Your task to perform on an android device: turn off improve location accuracy Image 0: 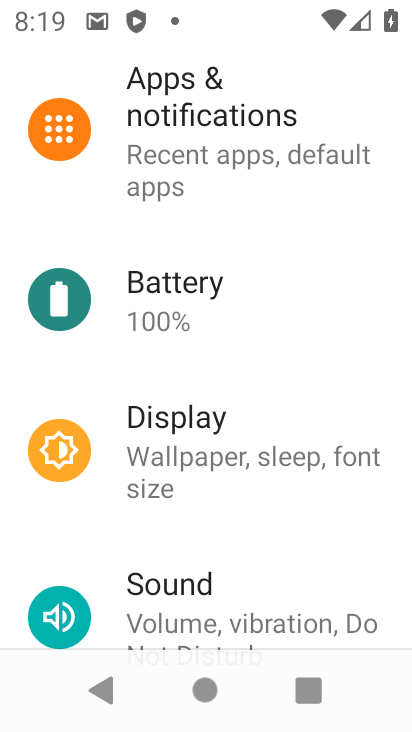
Step 0: drag from (257, 523) to (237, 15)
Your task to perform on an android device: turn off improve location accuracy Image 1: 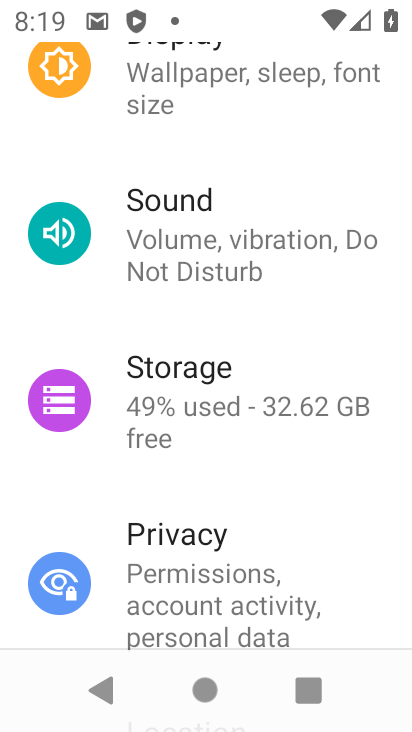
Step 1: drag from (232, 582) to (244, 106)
Your task to perform on an android device: turn off improve location accuracy Image 2: 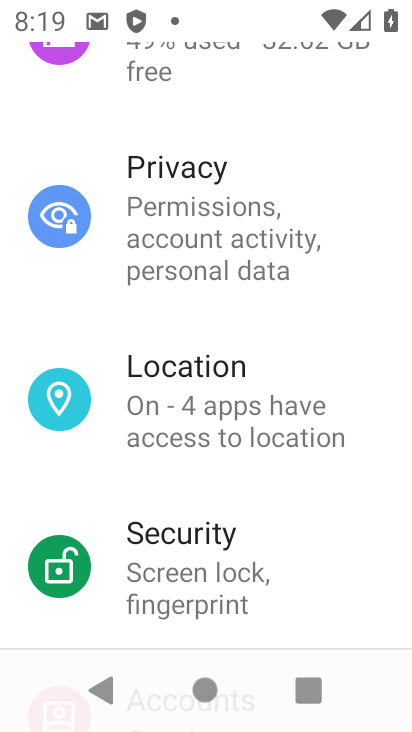
Step 2: click (223, 420)
Your task to perform on an android device: turn off improve location accuracy Image 3: 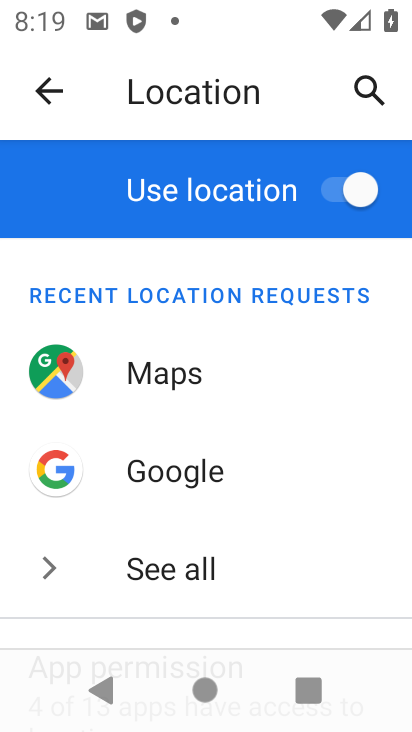
Step 3: drag from (236, 550) to (257, 16)
Your task to perform on an android device: turn off improve location accuracy Image 4: 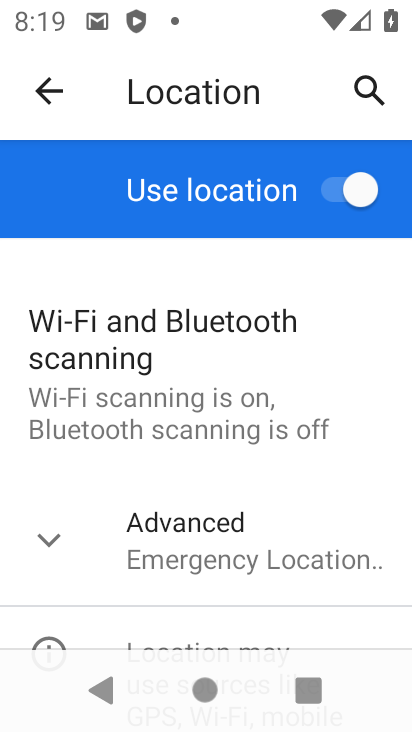
Step 4: click (296, 562)
Your task to perform on an android device: turn off improve location accuracy Image 5: 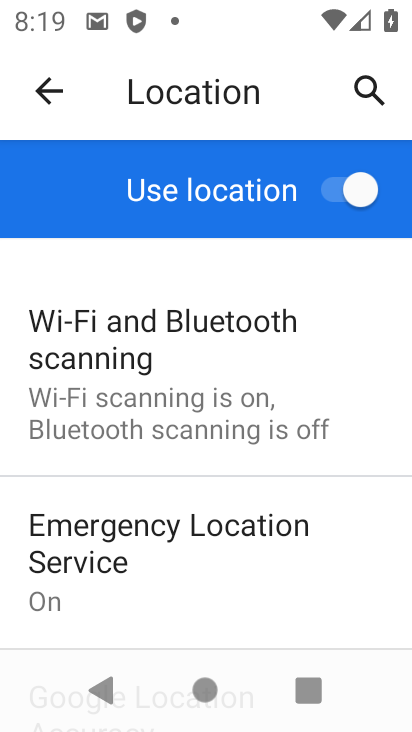
Step 5: drag from (279, 609) to (305, 179)
Your task to perform on an android device: turn off improve location accuracy Image 6: 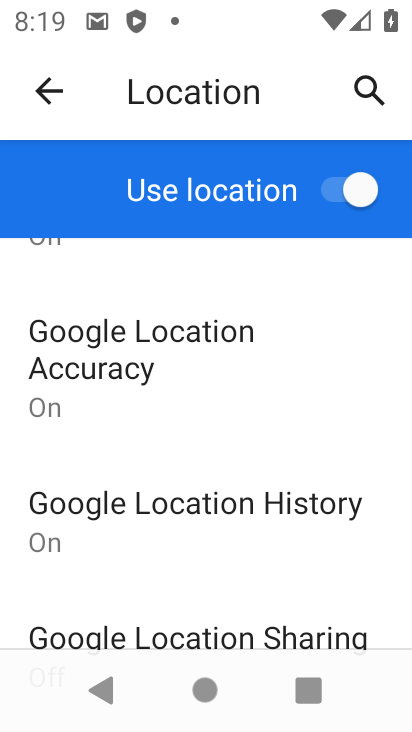
Step 6: drag from (231, 519) to (312, 26)
Your task to perform on an android device: turn off improve location accuracy Image 7: 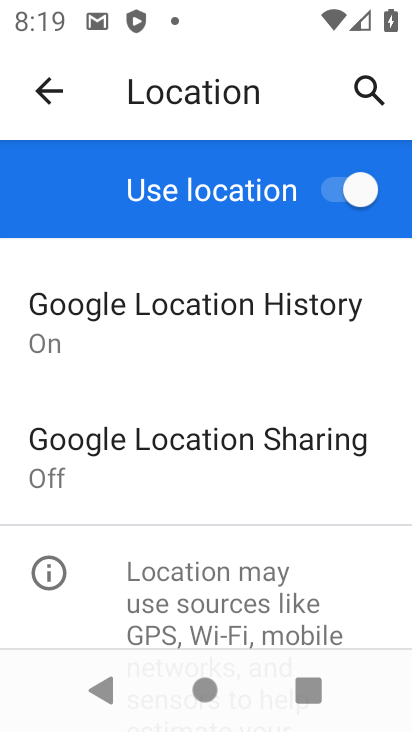
Step 7: drag from (253, 285) to (261, 704)
Your task to perform on an android device: turn off improve location accuracy Image 8: 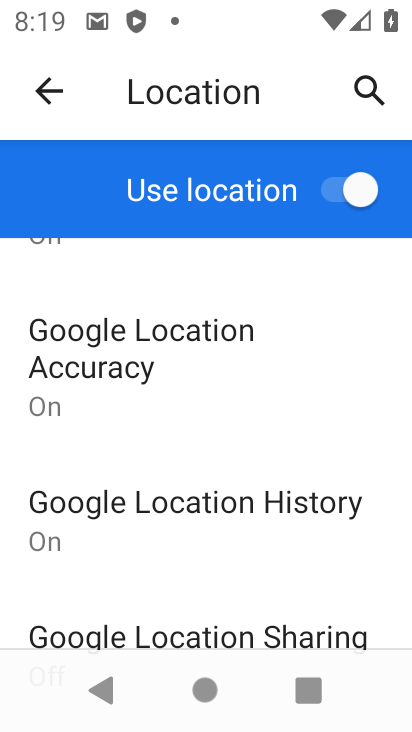
Step 8: click (159, 372)
Your task to perform on an android device: turn off improve location accuracy Image 9: 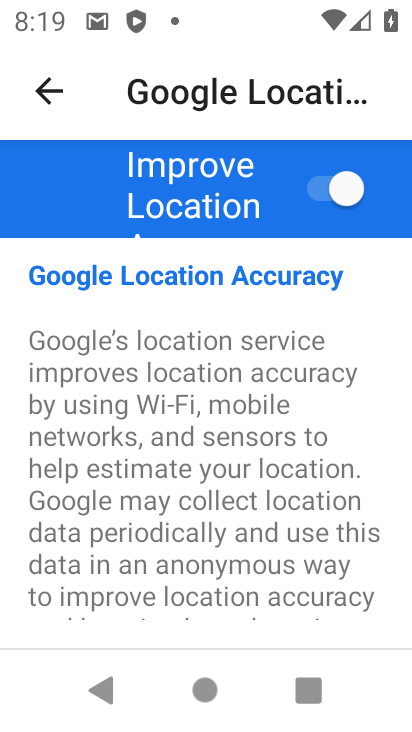
Step 9: click (328, 179)
Your task to perform on an android device: turn off improve location accuracy Image 10: 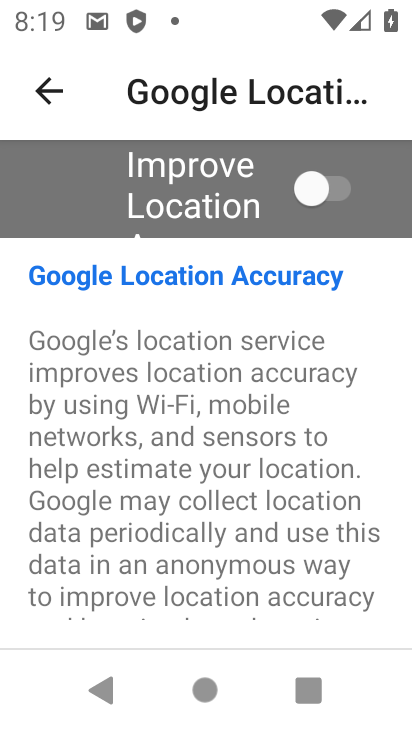
Step 10: task complete